Your task to perform on an android device: check battery use Image 0: 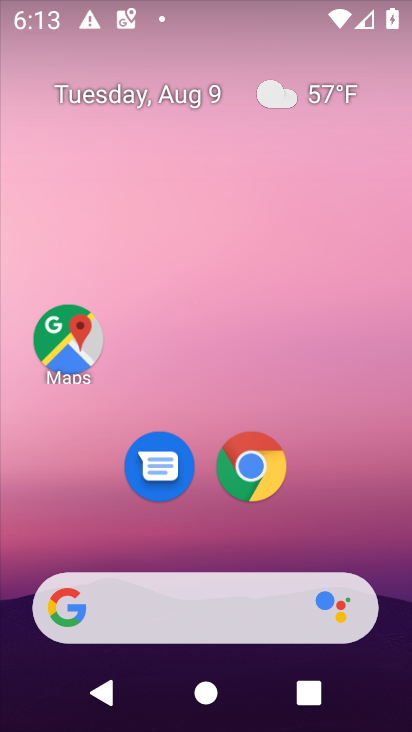
Step 0: drag from (185, 244) to (181, 110)
Your task to perform on an android device: check battery use Image 1: 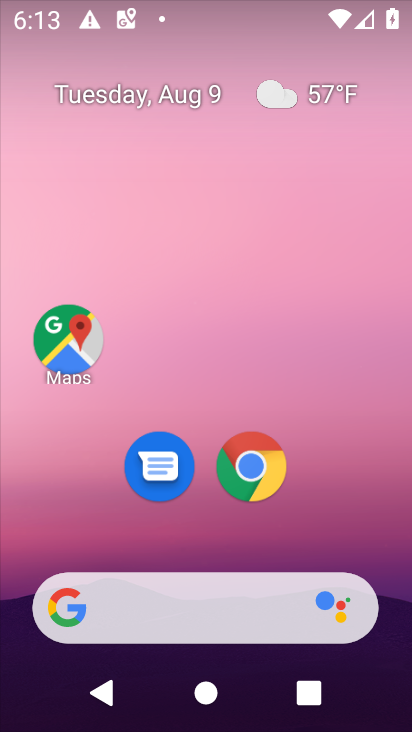
Step 1: drag from (204, 461) to (167, 10)
Your task to perform on an android device: check battery use Image 2: 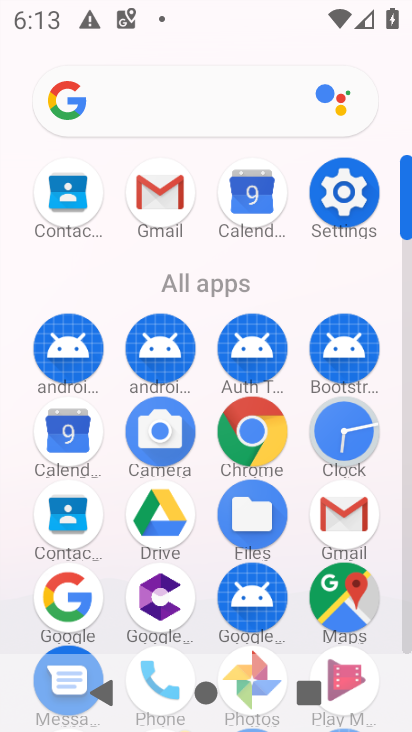
Step 2: click (352, 198)
Your task to perform on an android device: check battery use Image 3: 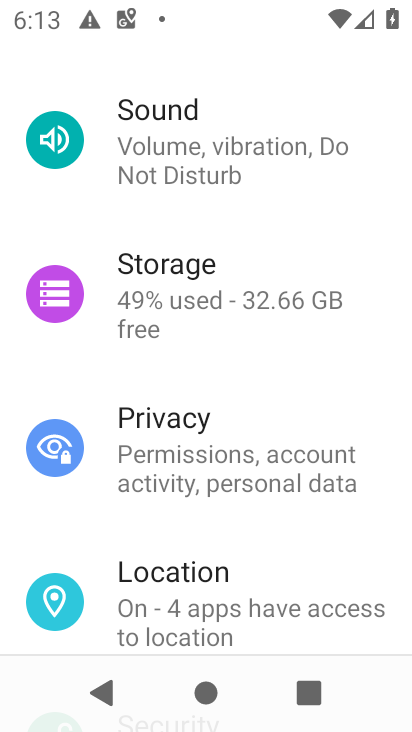
Step 3: drag from (236, 409) to (225, 726)
Your task to perform on an android device: check battery use Image 4: 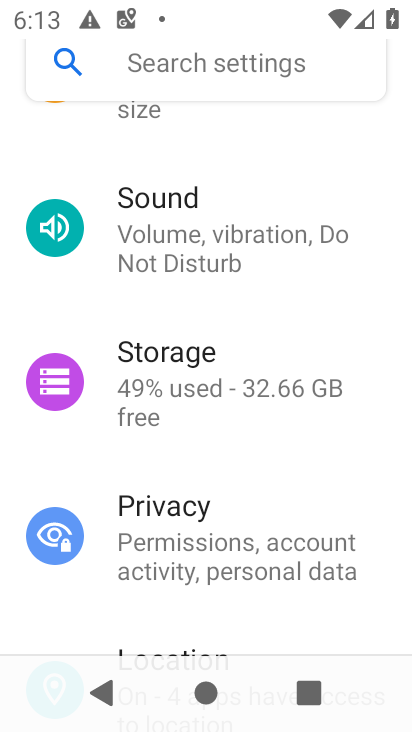
Step 4: drag from (269, 272) to (195, 731)
Your task to perform on an android device: check battery use Image 5: 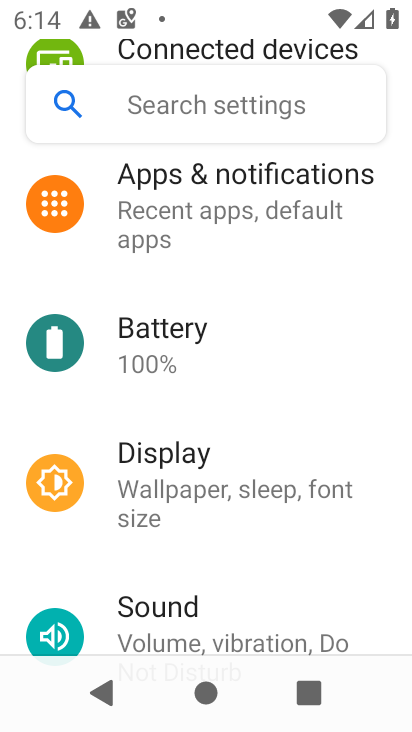
Step 5: click (161, 239)
Your task to perform on an android device: check battery use Image 6: 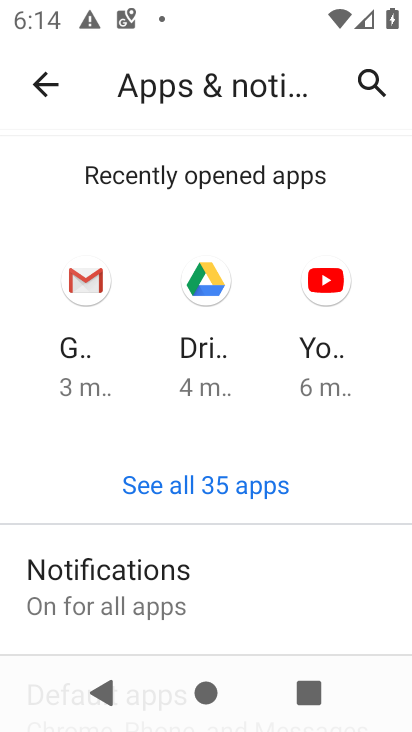
Step 6: task complete